Your task to perform on an android device: What's the news in Chile? Image 0: 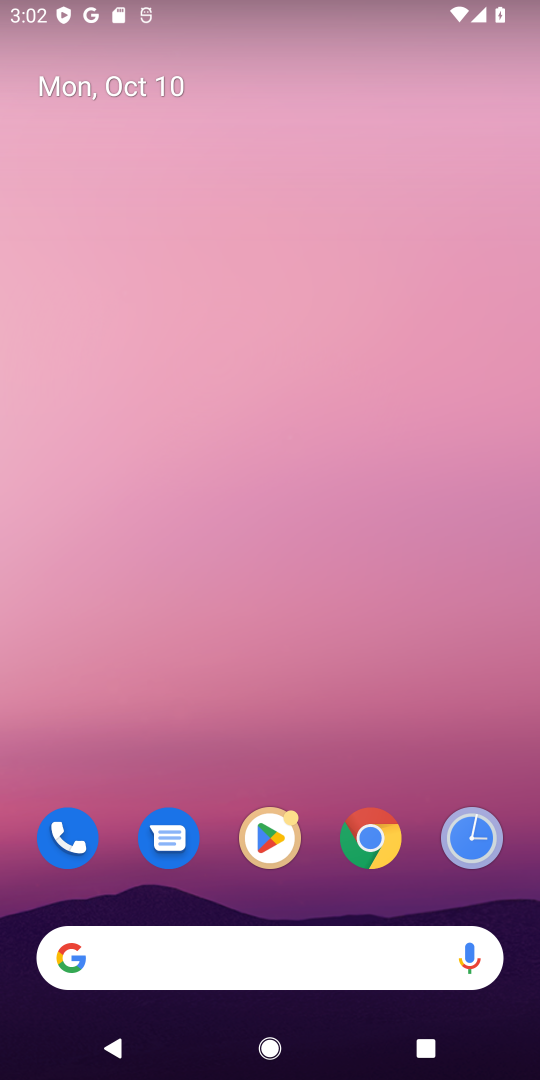
Step 0: click (274, 957)
Your task to perform on an android device: What's the news in Chile? Image 1: 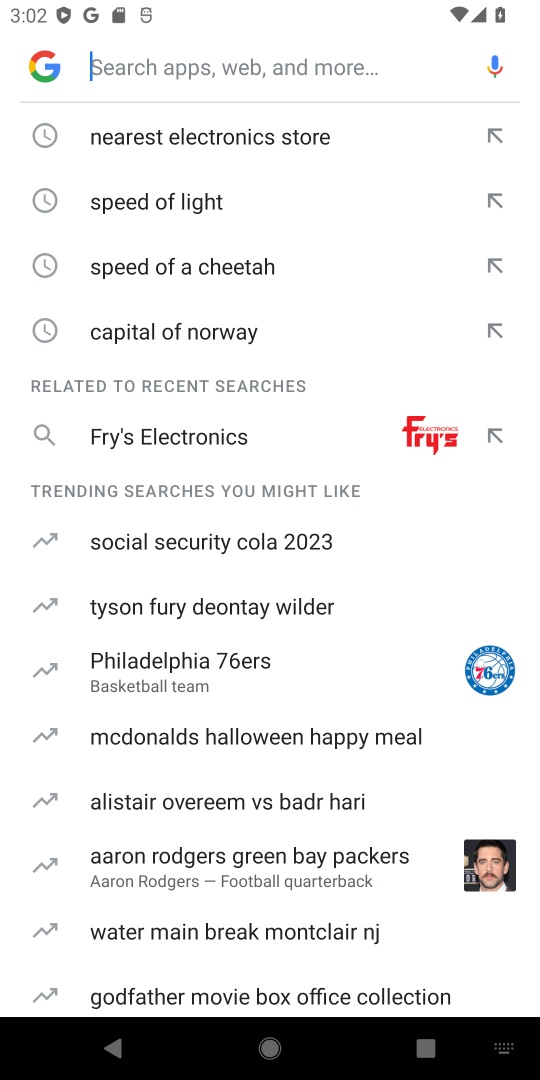
Step 1: type "news in Chile"
Your task to perform on an android device: What's the news in Chile? Image 2: 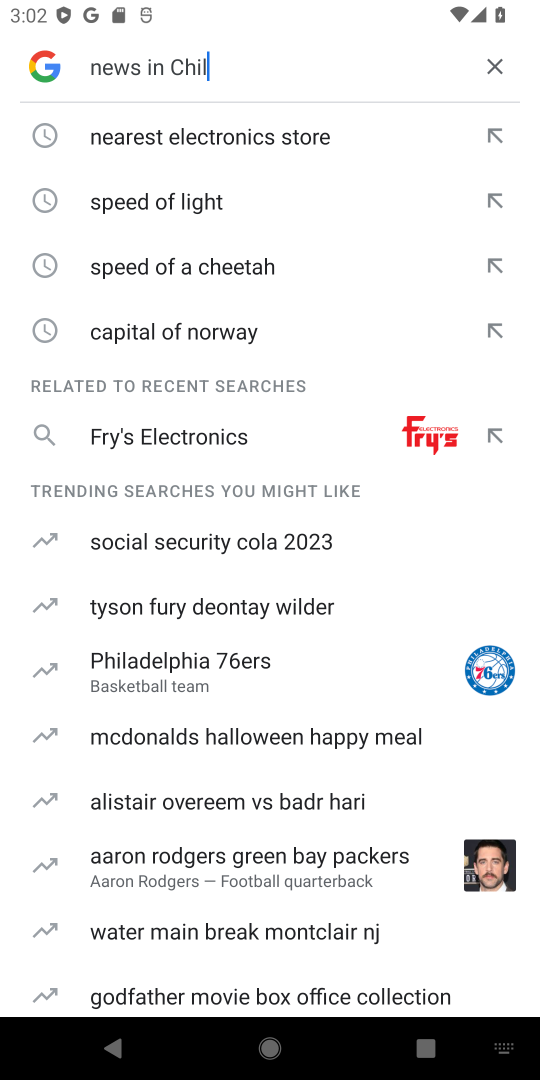
Step 2: type ""
Your task to perform on an android device: What's the news in Chile? Image 3: 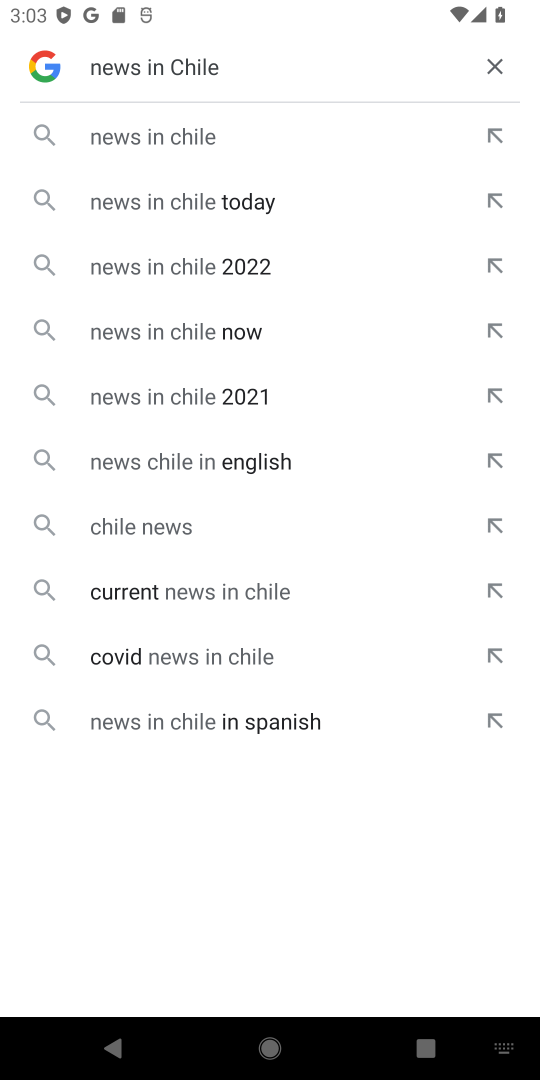
Step 3: click (205, 151)
Your task to perform on an android device: What's the news in Chile? Image 4: 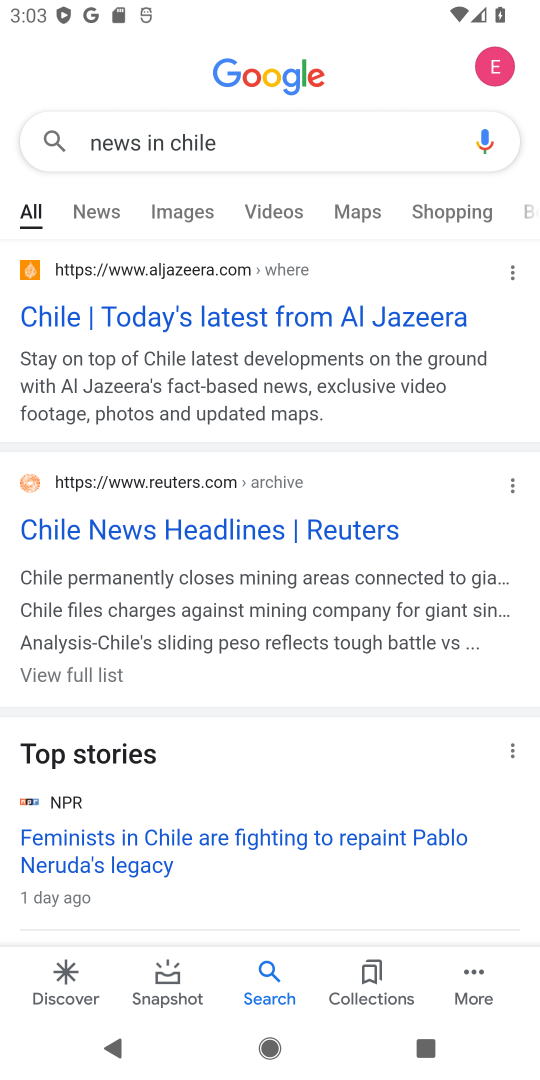
Step 4: click (276, 322)
Your task to perform on an android device: What's the news in Chile? Image 5: 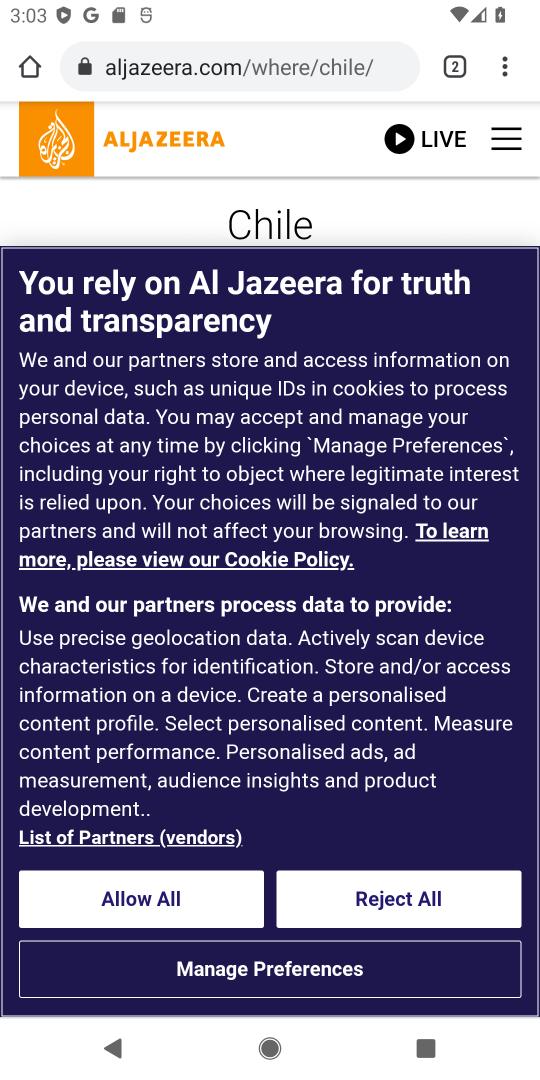
Step 5: click (196, 882)
Your task to perform on an android device: What's the news in Chile? Image 6: 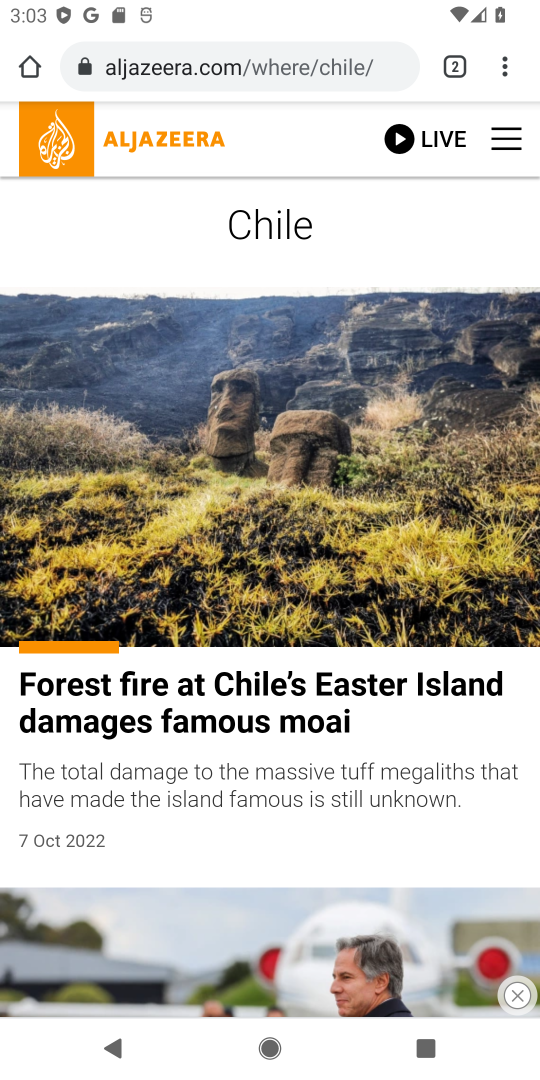
Step 6: drag from (177, 900) to (227, 424)
Your task to perform on an android device: What's the news in Chile? Image 7: 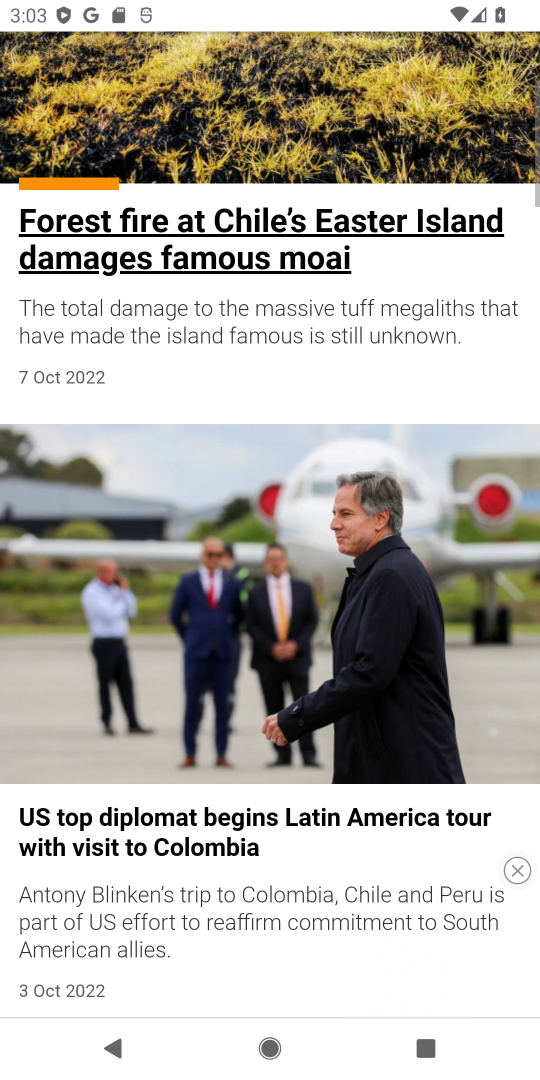
Step 7: drag from (300, 511) to (319, 321)
Your task to perform on an android device: What's the news in Chile? Image 8: 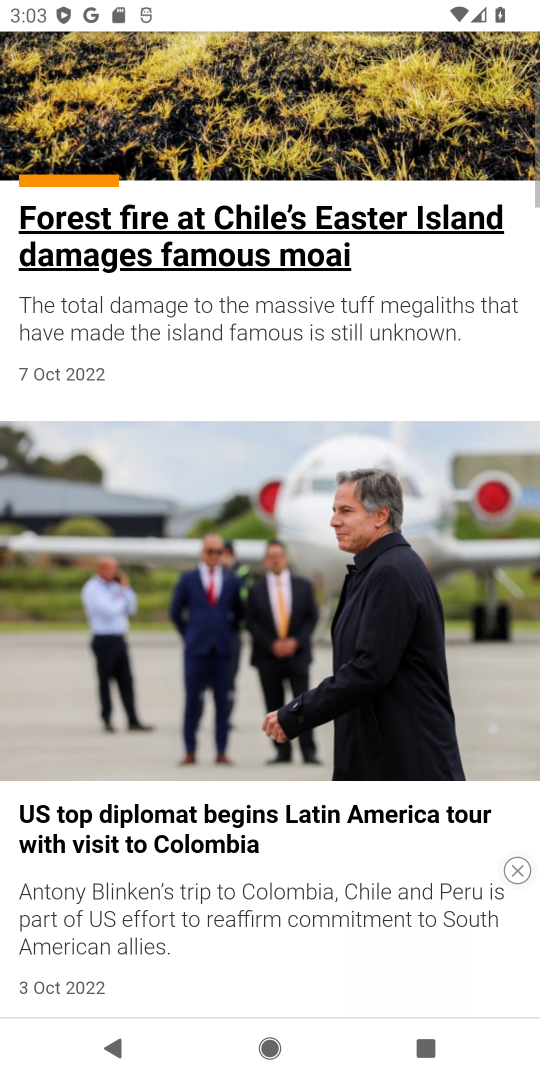
Step 8: click (394, 358)
Your task to perform on an android device: What's the news in Chile? Image 9: 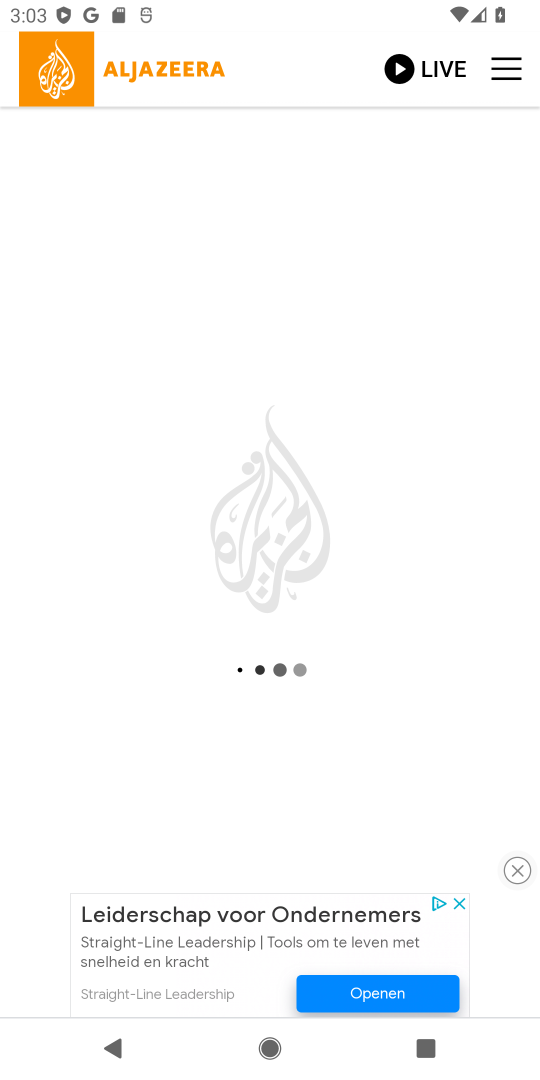
Step 9: task complete